Your task to perform on an android device: turn on javascript in the chrome app Image 0: 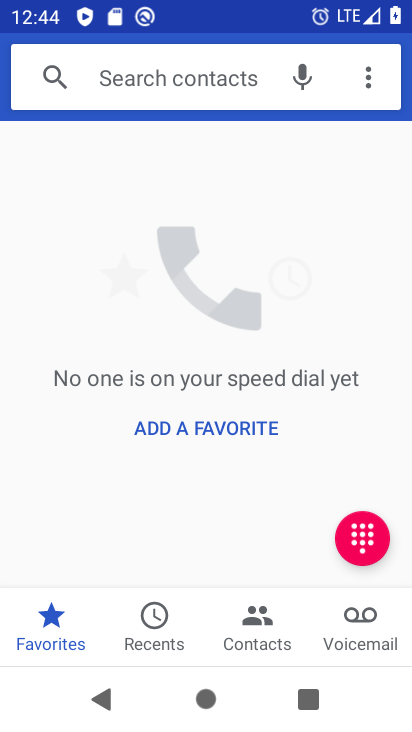
Step 0: press home button
Your task to perform on an android device: turn on javascript in the chrome app Image 1: 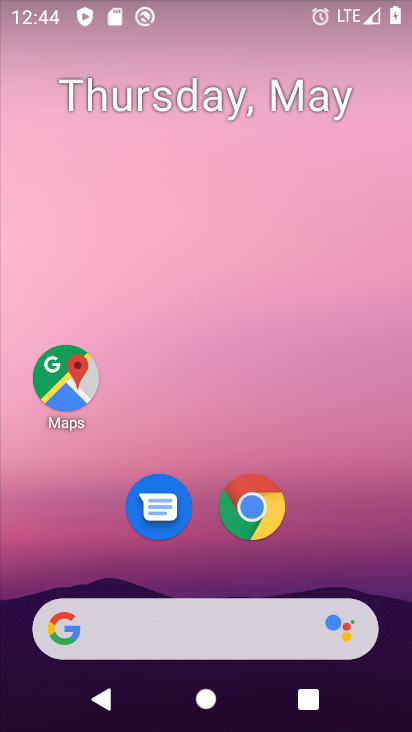
Step 1: click (256, 516)
Your task to perform on an android device: turn on javascript in the chrome app Image 2: 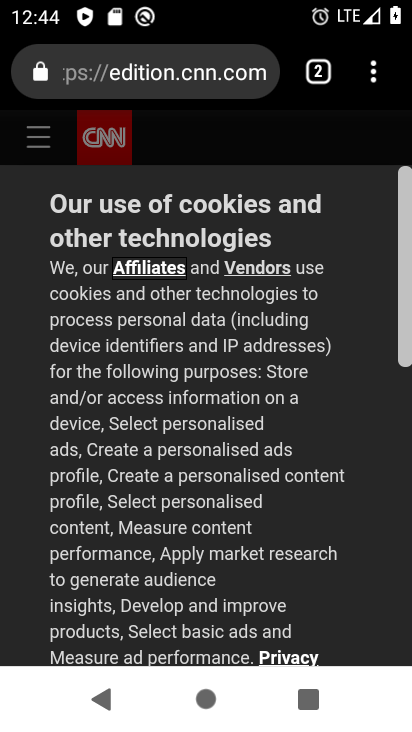
Step 2: click (367, 64)
Your task to perform on an android device: turn on javascript in the chrome app Image 3: 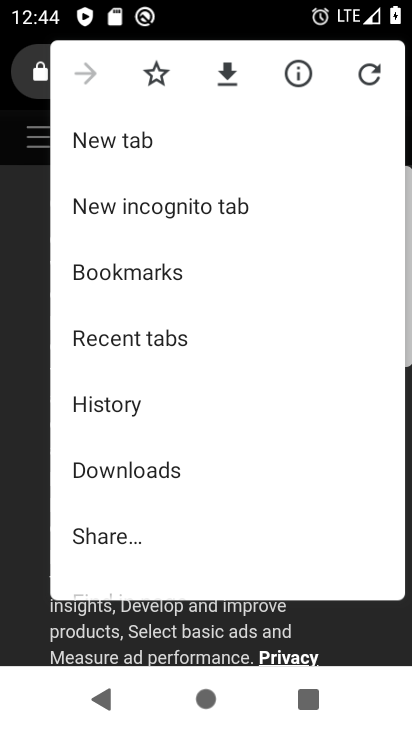
Step 3: drag from (216, 483) to (244, 317)
Your task to perform on an android device: turn on javascript in the chrome app Image 4: 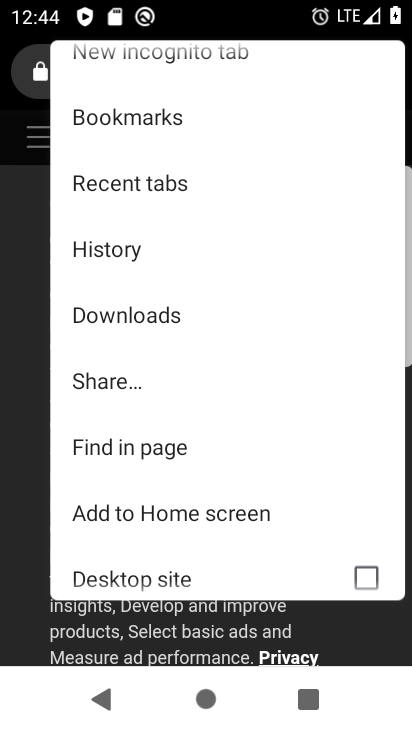
Step 4: drag from (243, 495) to (253, 333)
Your task to perform on an android device: turn on javascript in the chrome app Image 5: 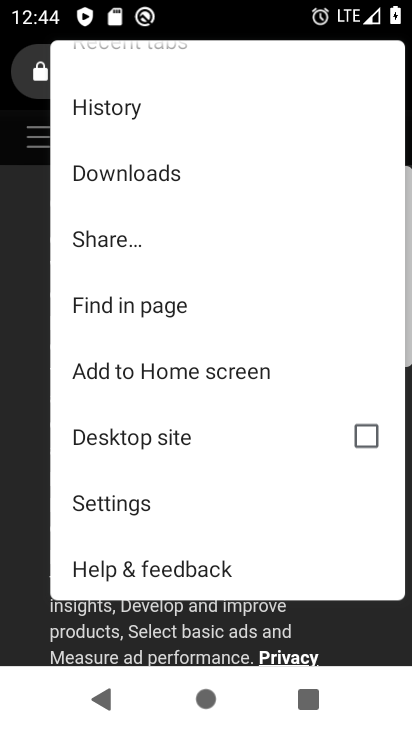
Step 5: click (188, 505)
Your task to perform on an android device: turn on javascript in the chrome app Image 6: 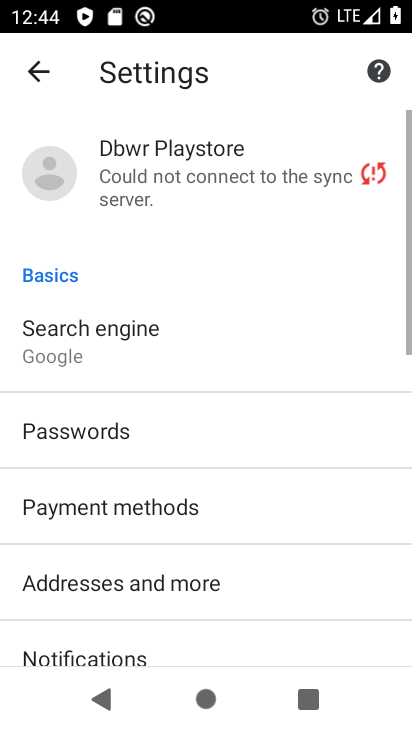
Step 6: drag from (198, 549) to (230, 272)
Your task to perform on an android device: turn on javascript in the chrome app Image 7: 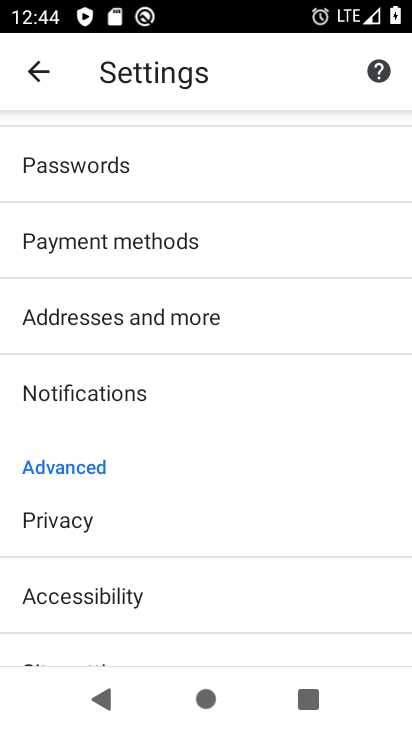
Step 7: drag from (192, 620) to (225, 349)
Your task to perform on an android device: turn on javascript in the chrome app Image 8: 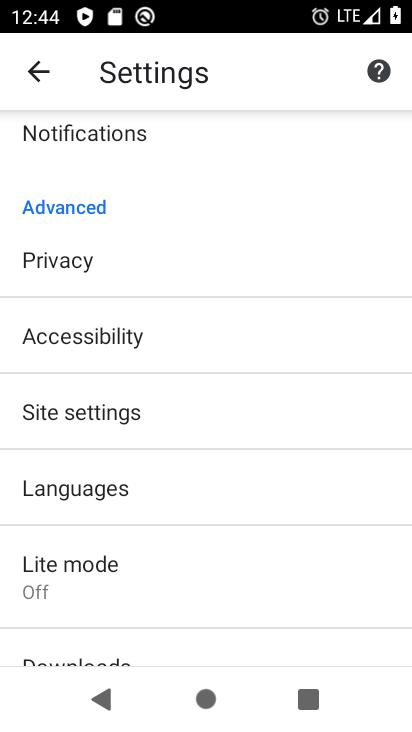
Step 8: drag from (178, 567) to (237, 369)
Your task to perform on an android device: turn on javascript in the chrome app Image 9: 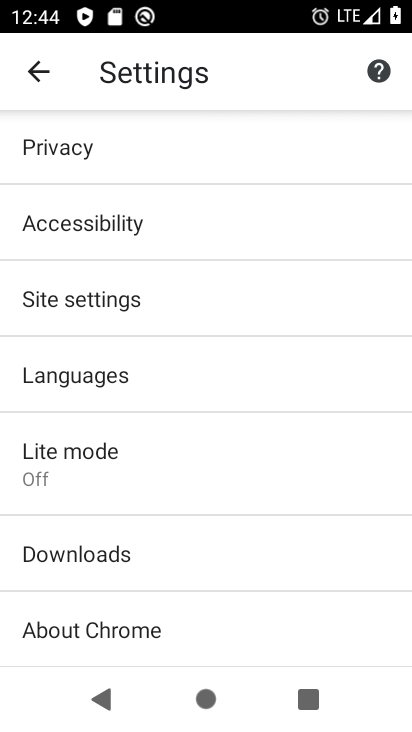
Step 9: click (179, 294)
Your task to perform on an android device: turn on javascript in the chrome app Image 10: 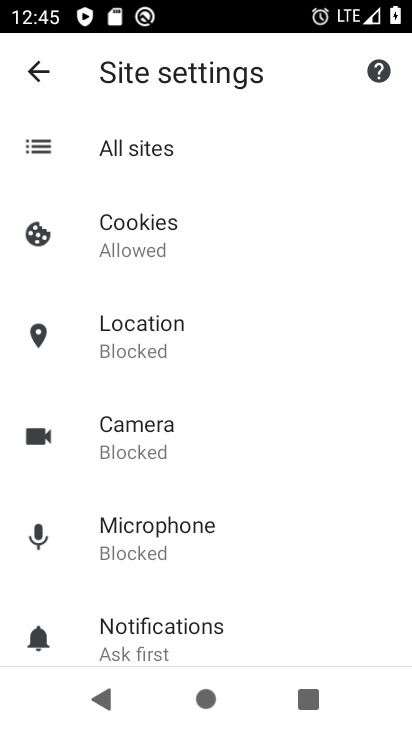
Step 10: drag from (239, 575) to (288, 298)
Your task to perform on an android device: turn on javascript in the chrome app Image 11: 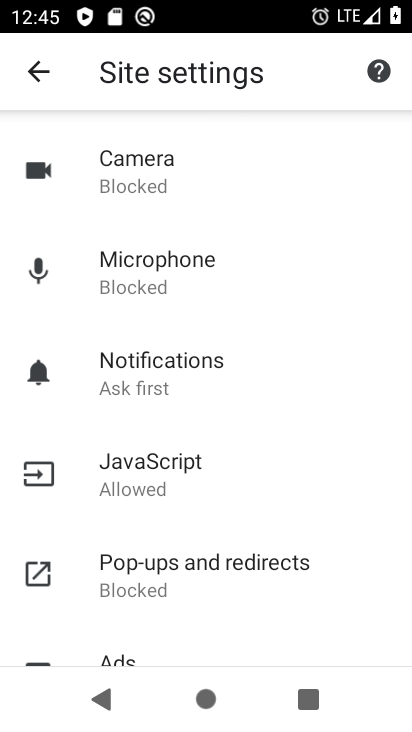
Step 11: click (197, 473)
Your task to perform on an android device: turn on javascript in the chrome app Image 12: 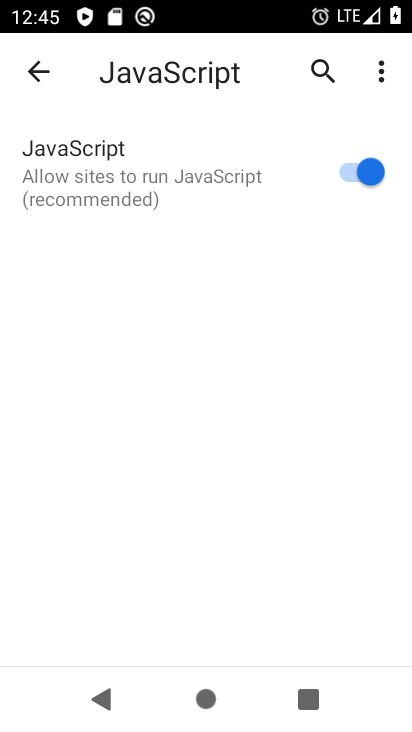
Step 12: task complete